Your task to perform on an android device: Go to privacy settings Image 0: 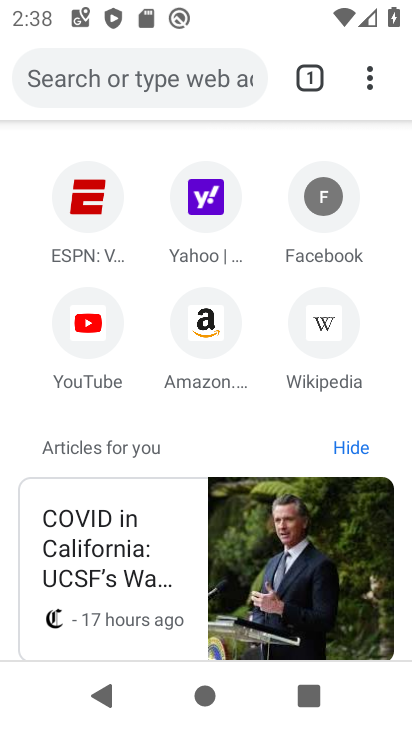
Step 0: press home button
Your task to perform on an android device: Go to privacy settings Image 1: 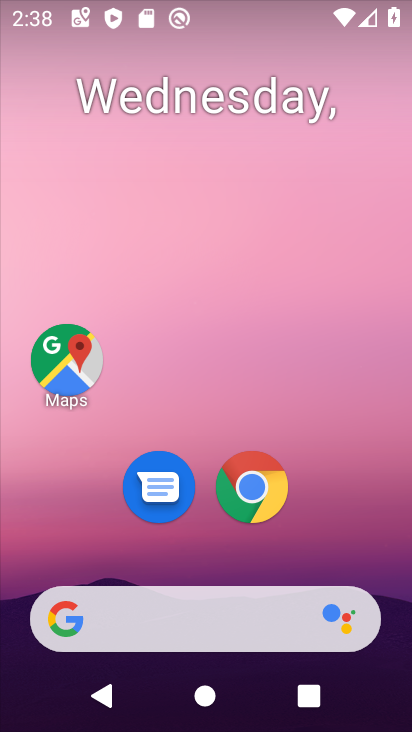
Step 1: drag from (380, 554) to (399, 347)
Your task to perform on an android device: Go to privacy settings Image 2: 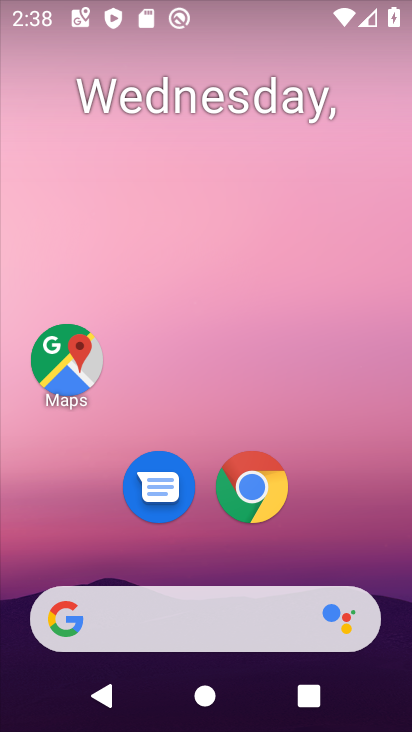
Step 2: drag from (356, 534) to (362, 239)
Your task to perform on an android device: Go to privacy settings Image 3: 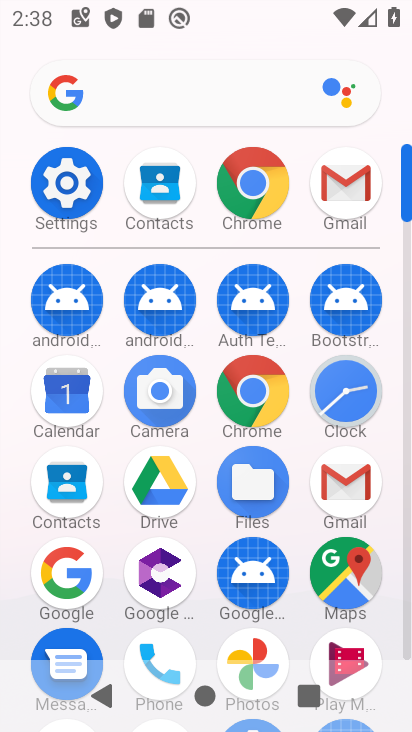
Step 3: click (78, 200)
Your task to perform on an android device: Go to privacy settings Image 4: 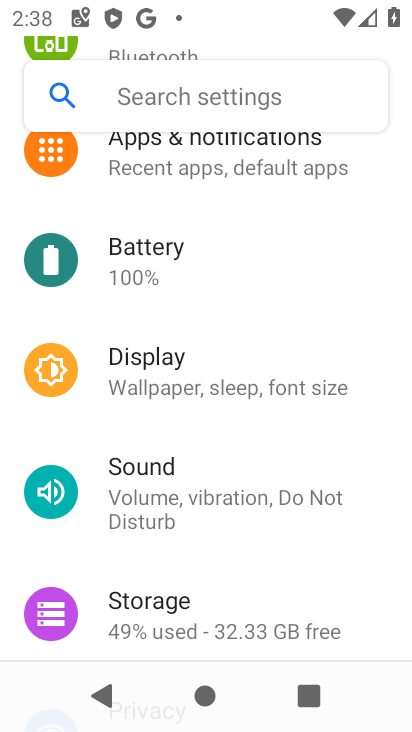
Step 4: drag from (328, 239) to (330, 346)
Your task to perform on an android device: Go to privacy settings Image 5: 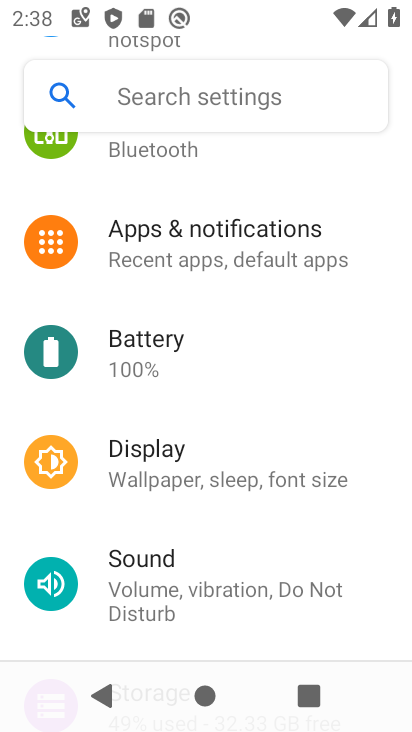
Step 5: drag from (348, 196) to (360, 342)
Your task to perform on an android device: Go to privacy settings Image 6: 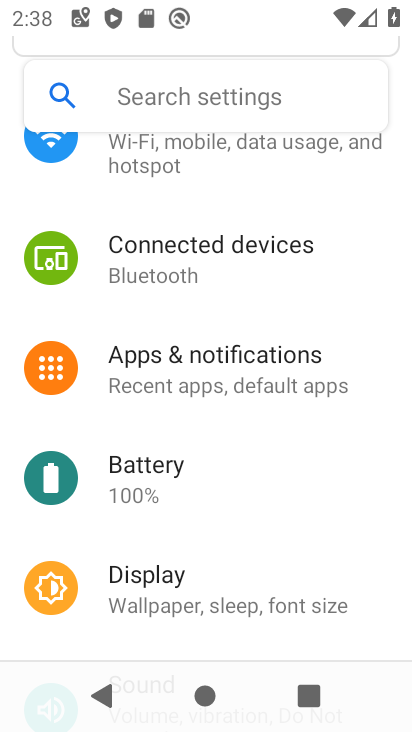
Step 6: drag from (361, 301) to (366, 410)
Your task to perform on an android device: Go to privacy settings Image 7: 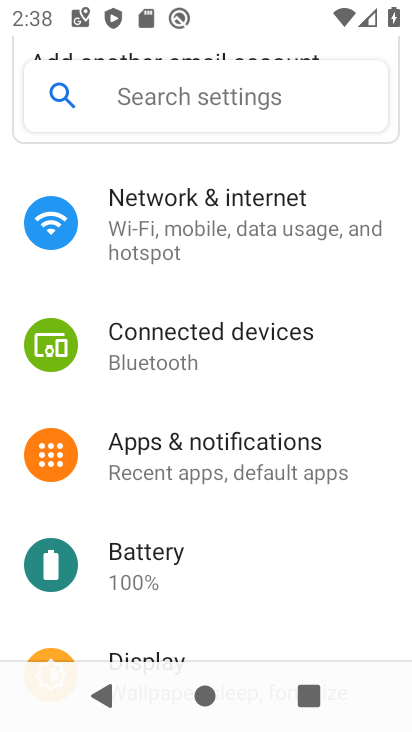
Step 7: drag from (351, 424) to (349, 319)
Your task to perform on an android device: Go to privacy settings Image 8: 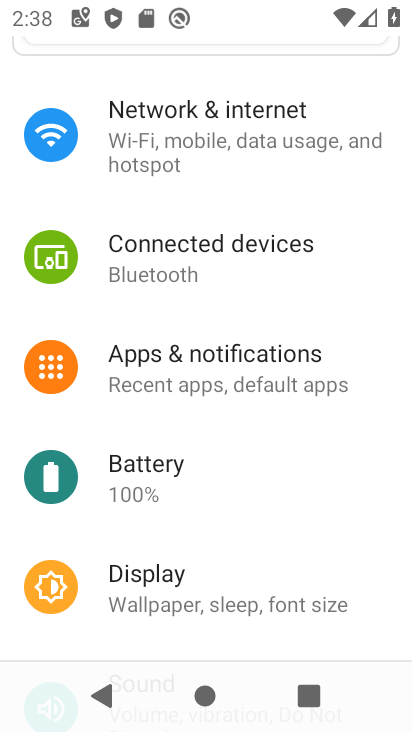
Step 8: drag from (340, 460) to (341, 322)
Your task to perform on an android device: Go to privacy settings Image 9: 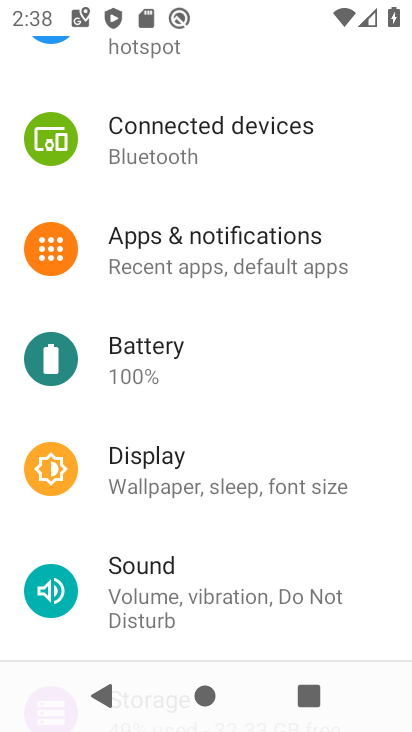
Step 9: drag from (351, 536) to (365, 400)
Your task to perform on an android device: Go to privacy settings Image 10: 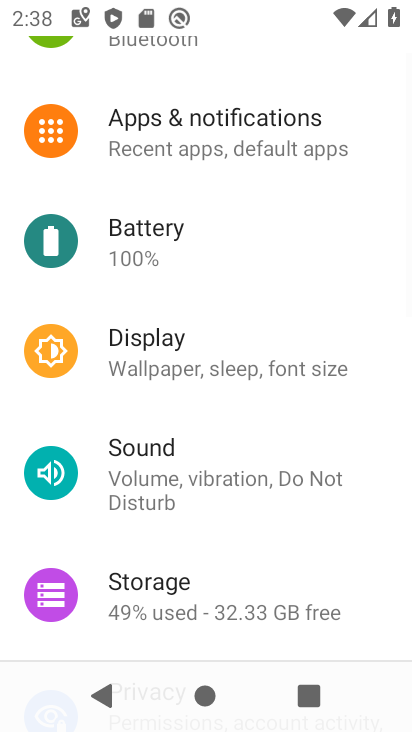
Step 10: drag from (354, 535) to (357, 427)
Your task to perform on an android device: Go to privacy settings Image 11: 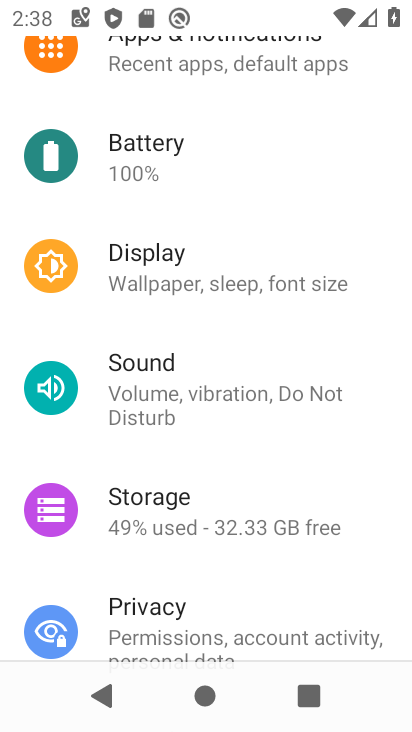
Step 11: drag from (353, 557) to (356, 436)
Your task to perform on an android device: Go to privacy settings Image 12: 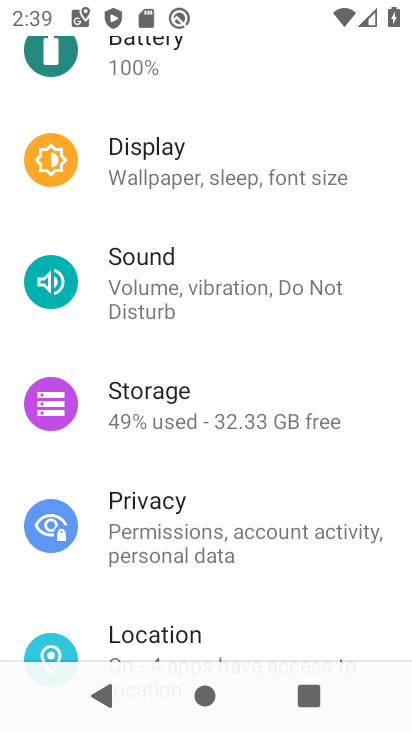
Step 12: drag from (352, 543) to (345, 339)
Your task to perform on an android device: Go to privacy settings Image 13: 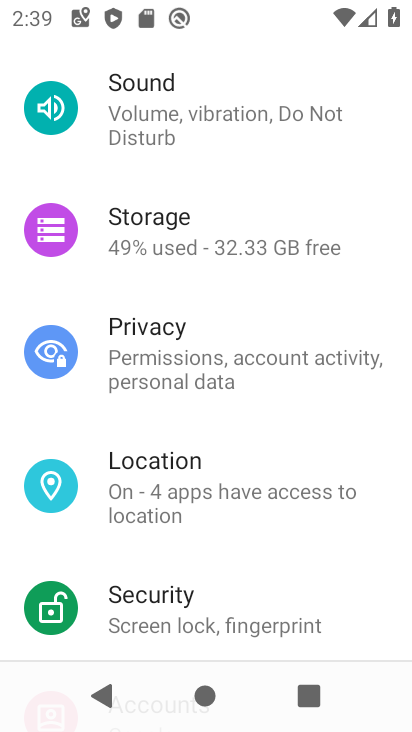
Step 13: drag from (335, 549) to (343, 423)
Your task to perform on an android device: Go to privacy settings Image 14: 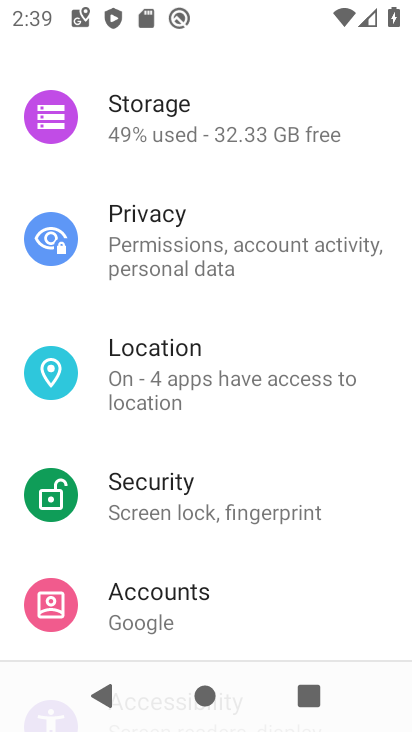
Step 14: drag from (350, 523) to (337, 339)
Your task to perform on an android device: Go to privacy settings Image 15: 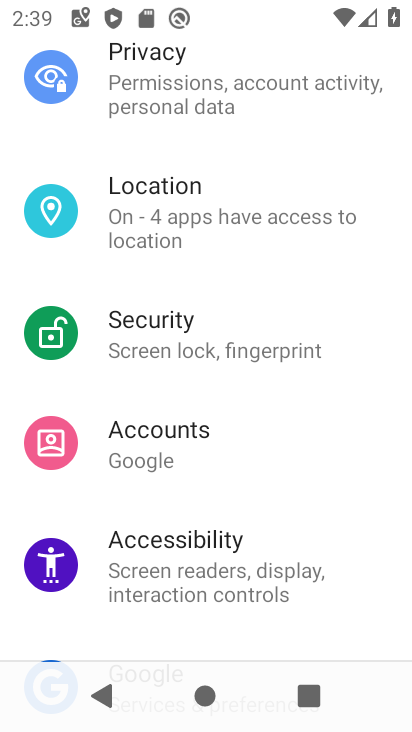
Step 15: drag from (345, 275) to (346, 400)
Your task to perform on an android device: Go to privacy settings Image 16: 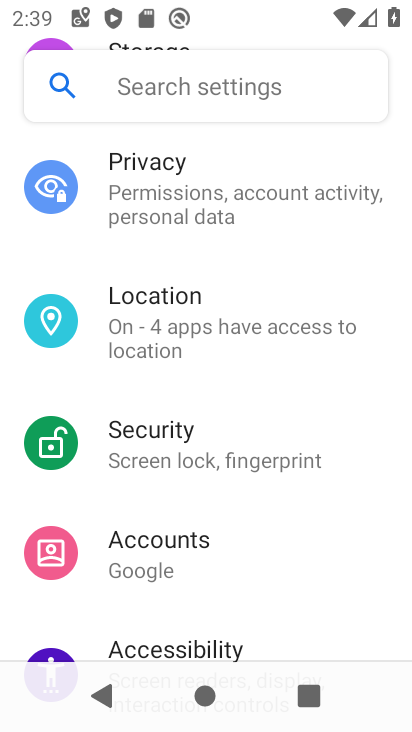
Step 16: drag from (322, 254) to (327, 426)
Your task to perform on an android device: Go to privacy settings Image 17: 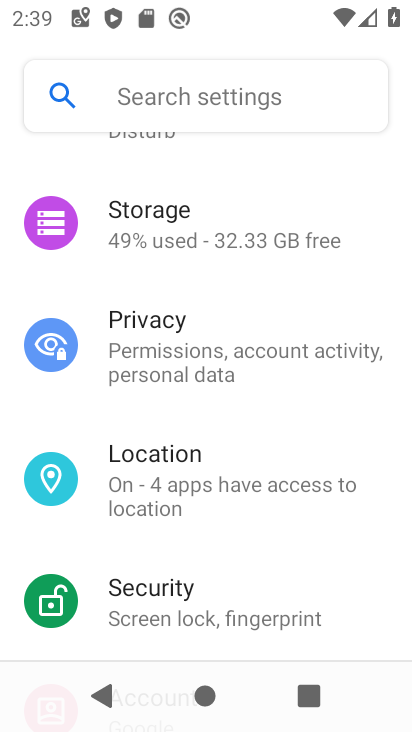
Step 17: drag from (349, 294) to (357, 413)
Your task to perform on an android device: Go to privacy settings Image 18: 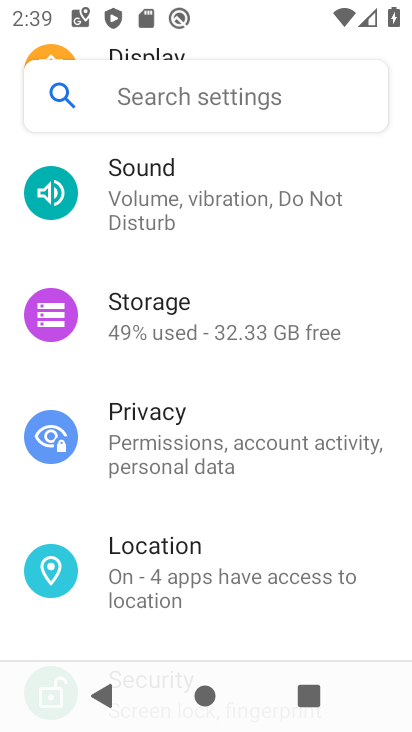
Step 18: click (214, 461)
Your task to perform on an android device: Go to privacy settings Image 19: 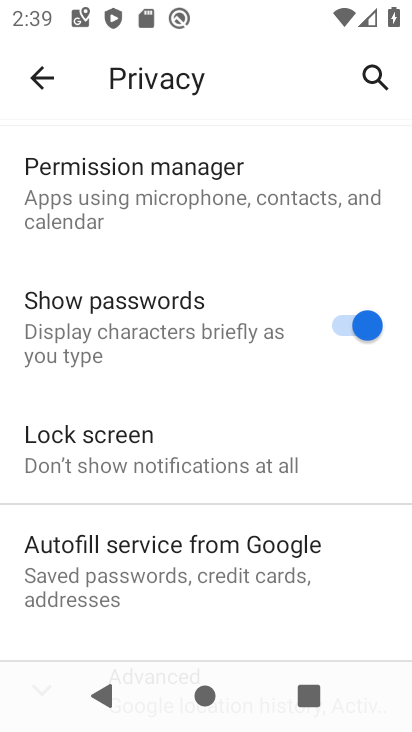
Step 19: task complete